Your task to perform on an android device: Search for Italian restaurants on Maps Image 0: 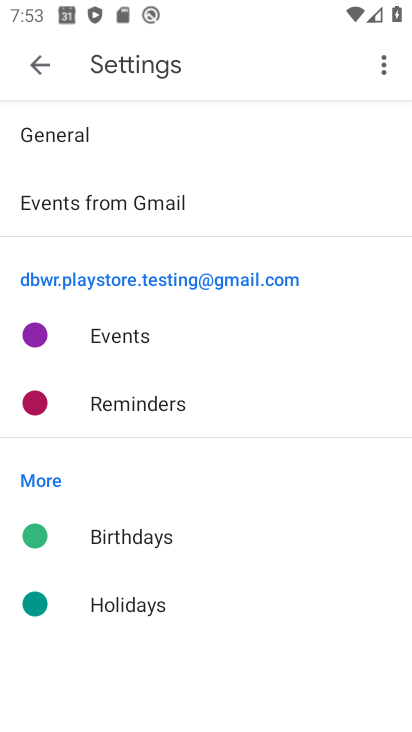
Step 0: press home button
Your task to perform on an android device: Search for Italian restaurants on Maps Image 1: 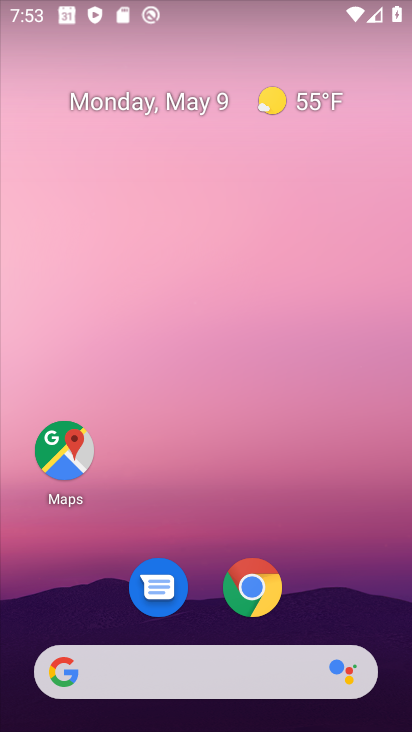
Step 1: drag from (209, 627) to (132, 17)
Your task to perform on an android device: Search for Italian restaurants on Maps Image 2: 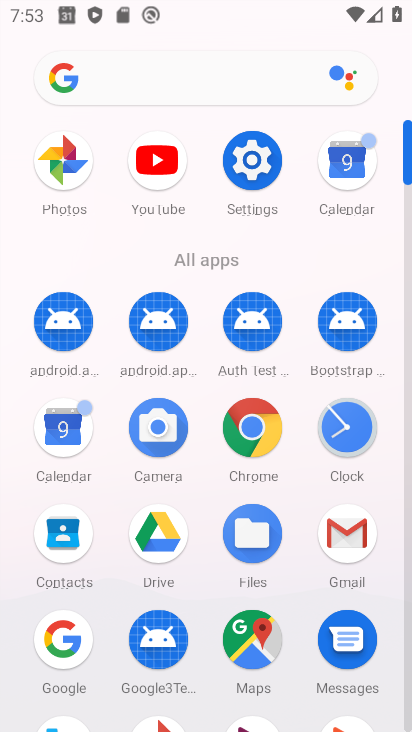
Step 2: click (238, 640)
Your task to perform on an android device: Search for Italian restaurants on Maps Image 3: 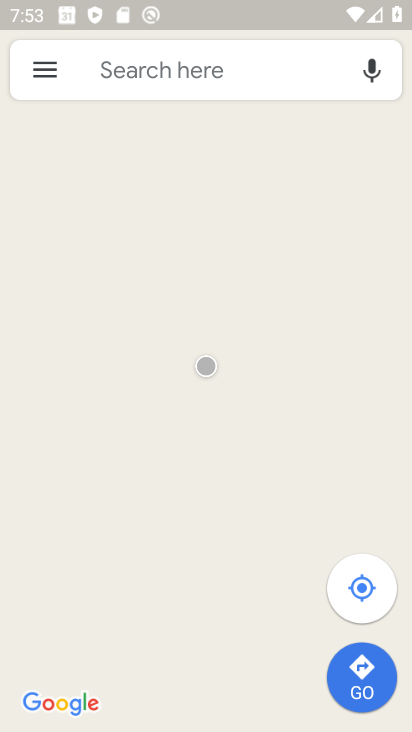
Step 3: click (191, 77)
Your task to perform on an android device: Search for Italian restaurants on Maps Image 4: 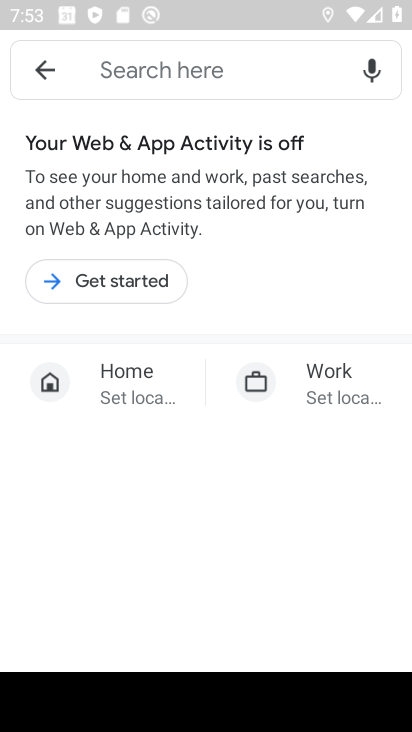
Step 4: click (155, 275)
Your task to perform on an android device: Search for Italian restaurants on Maps Image 5: 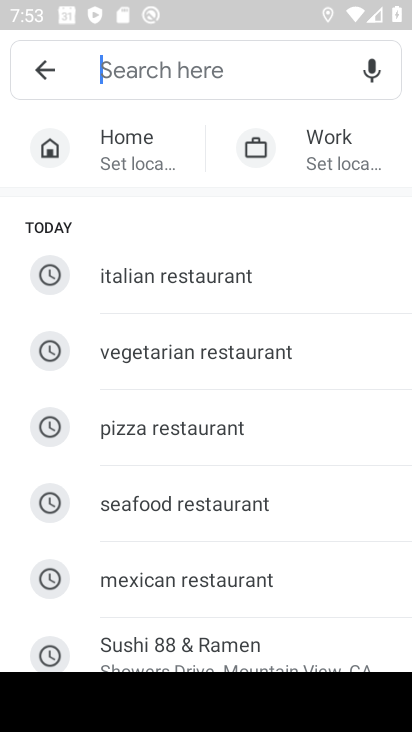
Step 5: click (199, 289)
Your task to perform on an android device: Search for Italian restaurants on Maps Image 6: 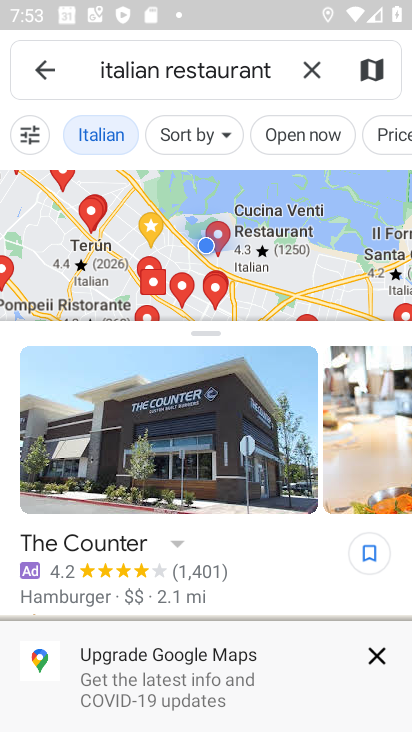
Step 6: task complete